Your task to perform on an android device: Clear all items from cart on target.com. Search for acer nitro on target.com, select the first entry, and add it to the cart. Image 0: 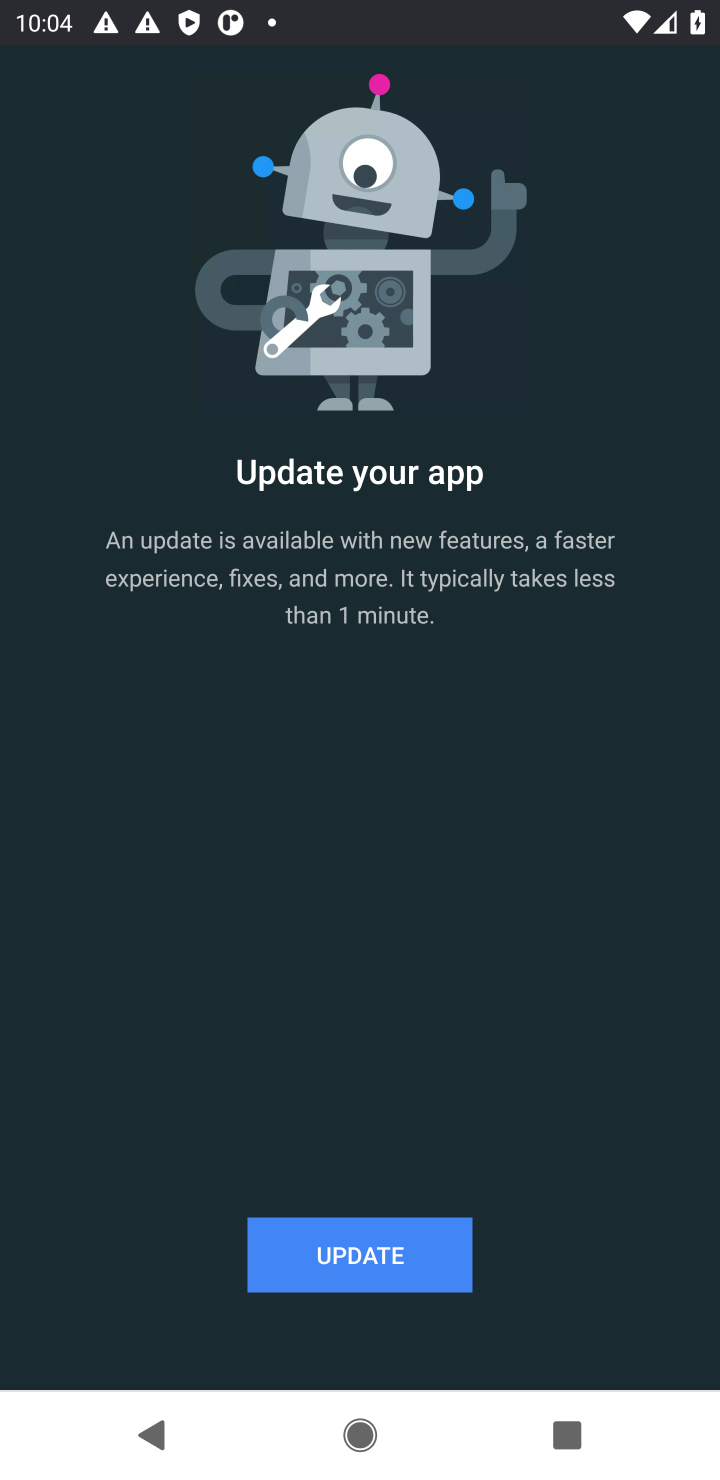
Step 0: press home button
Your task to perform on an android device: Clear all items from cart on target.com. Search for acer nitro on target.com, select the first entry, and add it to the cart. Image 1: 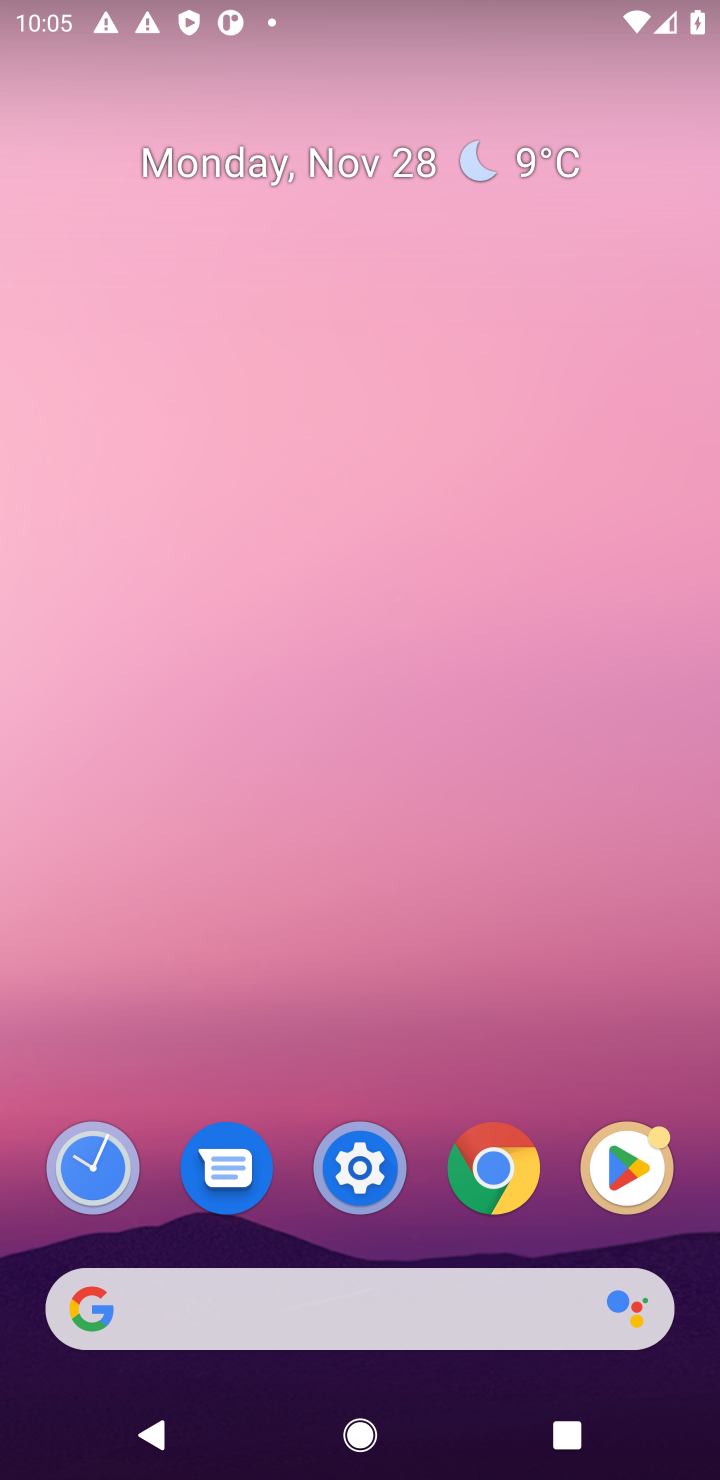
Step 1: task complete